Your task to perform on an android device: Is it going to rain this weekend? Image 0: 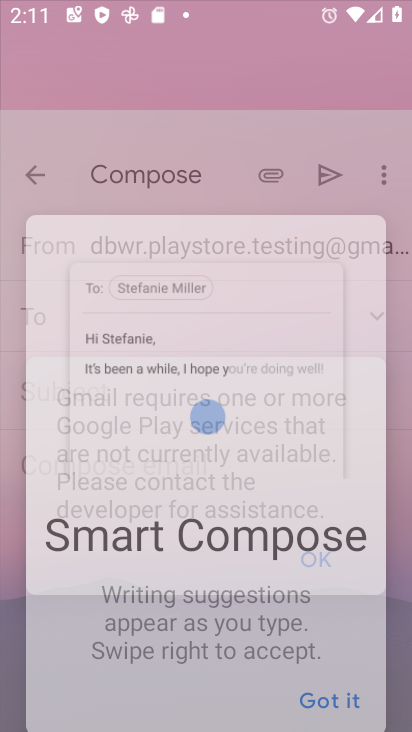
Step 0: click (300, 220)
Your task to perform on an android device: Is it going to rain this weekend? Image 1: 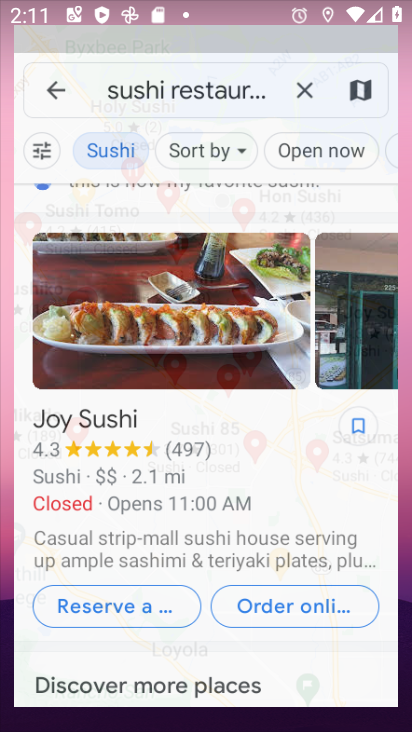
Step 1: drag from (113, 579) to (111, 166)
Your task to perform on an android device: Is it going to rain this weekend? Image 2: 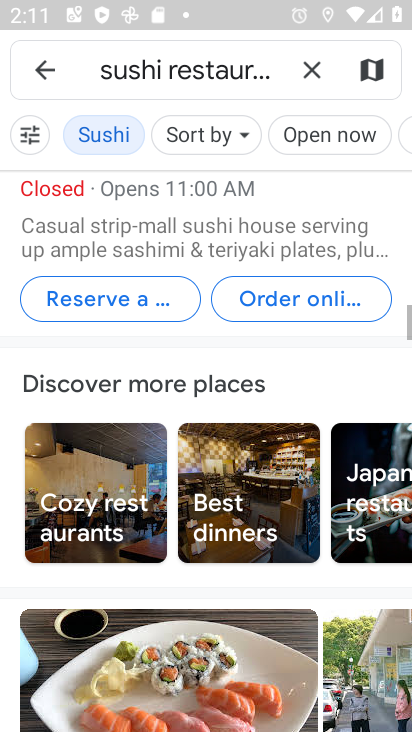
Step 2: drag from (201, 511) to (217, 151)
Your task to perform on an android device: Is it going to rain this weekend? Image 3: 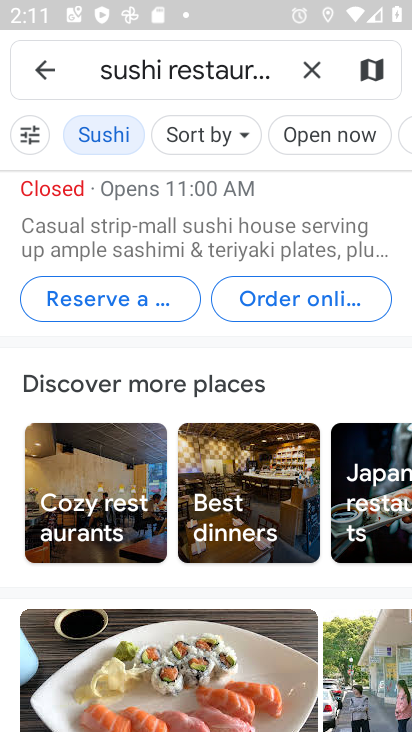
Step 3: press home button
Your task to perform on an android device: Is it going to rain this weekend? Image 4: 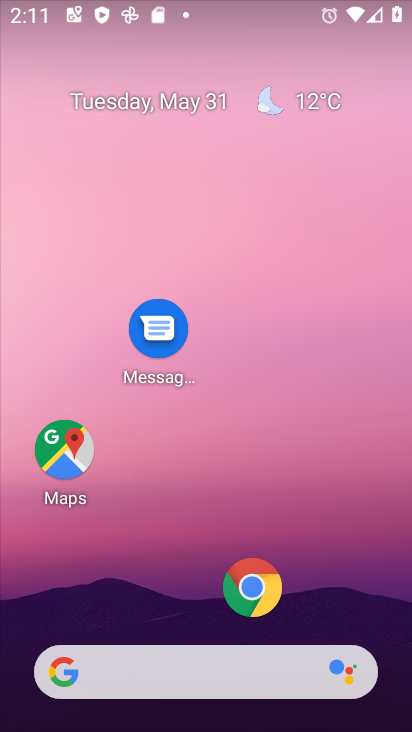
Step 4: drag from (189, 320) to (189, 28)
Your task to perform on an android device: Is it going to rain this weekend? Image 5: 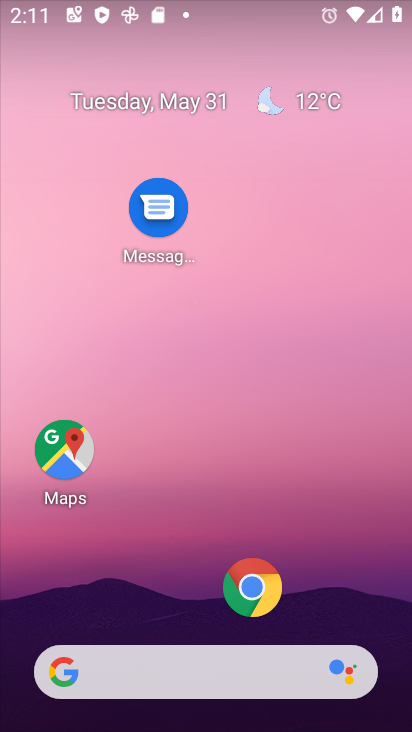
Step 5: drag from (159, 569) to (168, 86)
Your task to perform on an android device: Is it going to rain this weekend? Image 6: 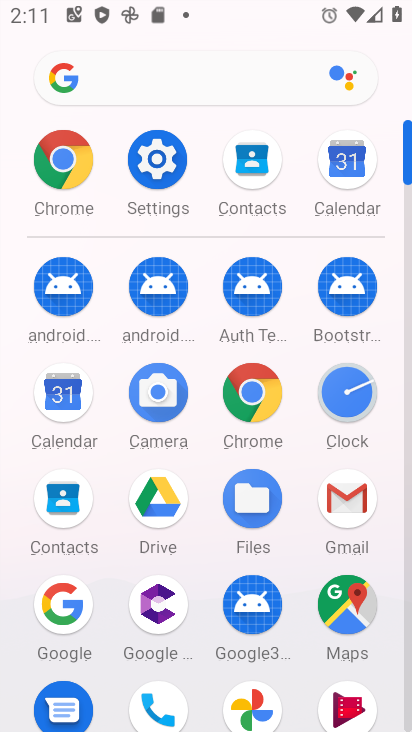
Step 6: click (146, 78)
Your task to perform on an android device: Is it going to rain this weekend? Image 7: 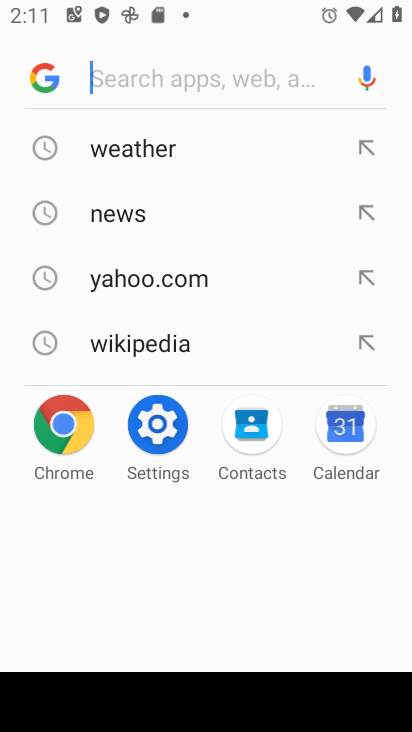
Step 7: type "rain this weekend?"
Your task to perform on an android device: Is it going to rain this weekend? Image 8: 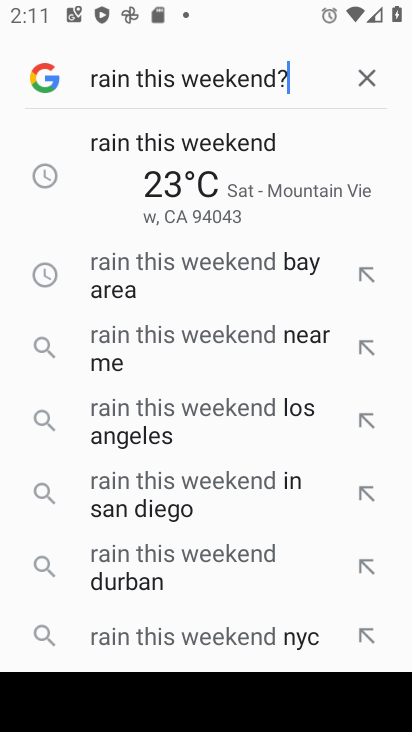
Step 8: type ""
Your task to perform on an android device: Is it going to rain this weekend? Image 9: 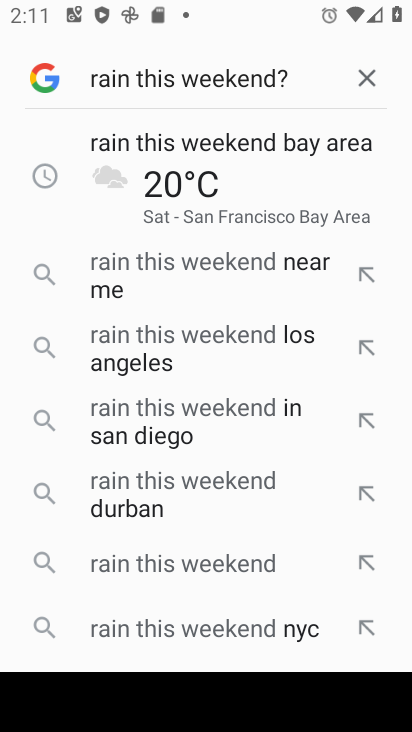
Step 9: click (151, 166)
Your task to perform on an android device: Is it going to rain this weekend? Image 10: 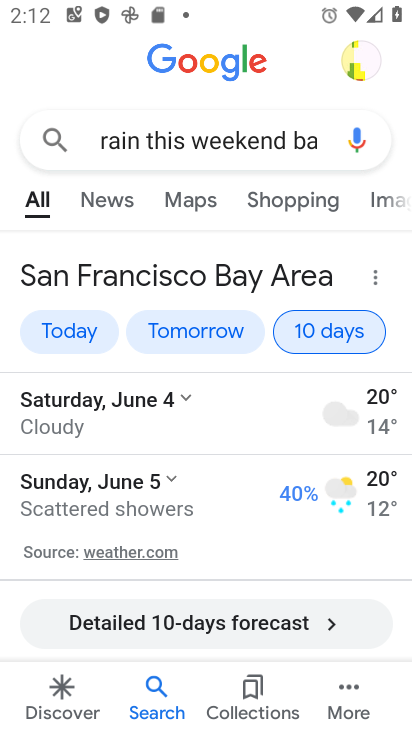
Step 10: task complete